Your task to perform on an android device: Turn off the flashlight Image 0: 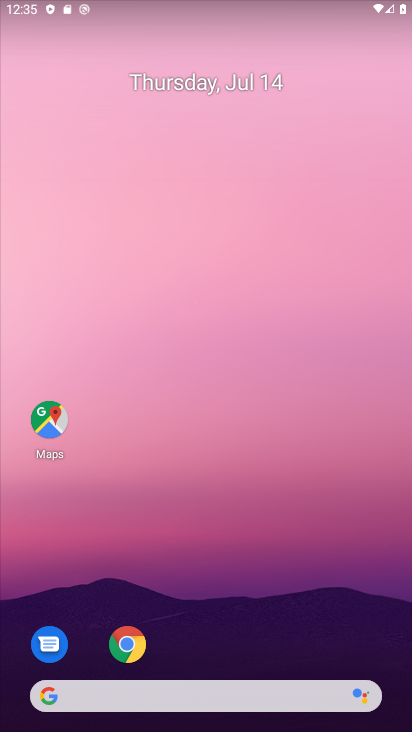
Step 0: drag from (344, 600) to (173, 82)
Your task to perform on an android device: Turn off the flashlight Image 1: 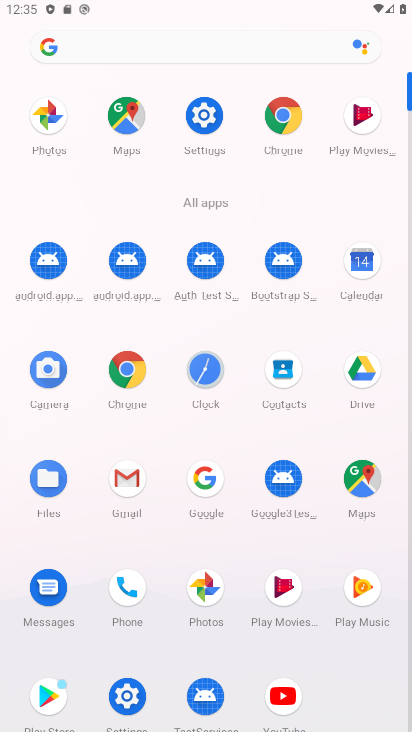
Step 1: click (197, 115)
Your task to perform on an android device: Turn off the flashlight Image 2: 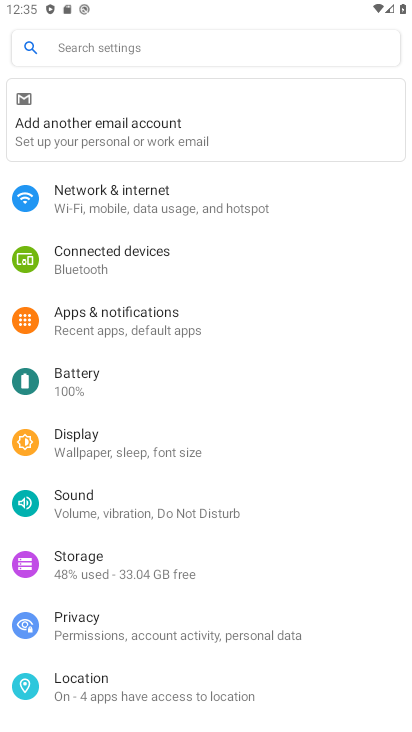
Step 2: click (86, 435)
Your task to perform on an android device: Turn off the flashlight Image 3: 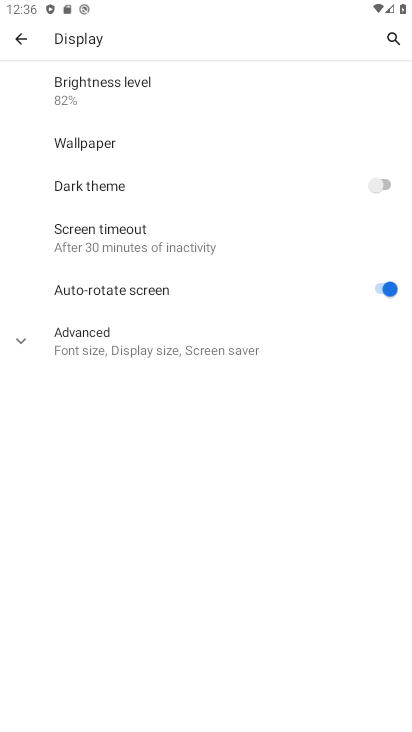
Step 3: task complete